Your task to perform on an android device: turn on airplane mode Image 0: 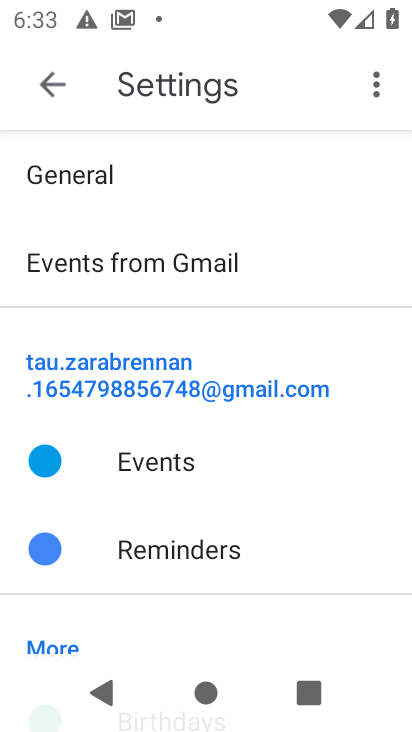
Step 0: press home button
Your task to perform on an android device: turn on airplane mode Image 1: 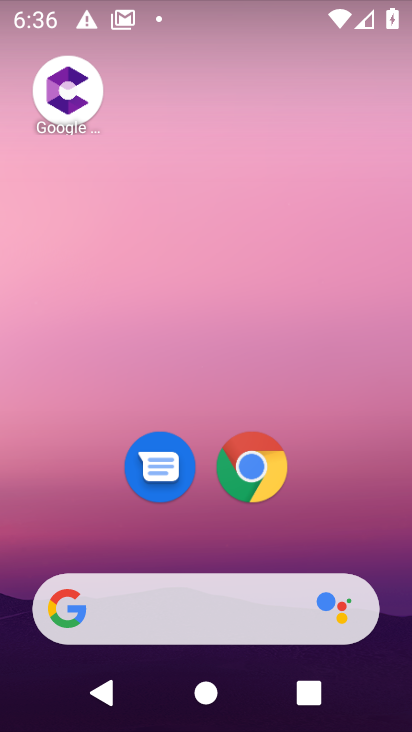
Step 1: task complete